Your task to perform on an android device: toggle improve location accuracy Image 0: 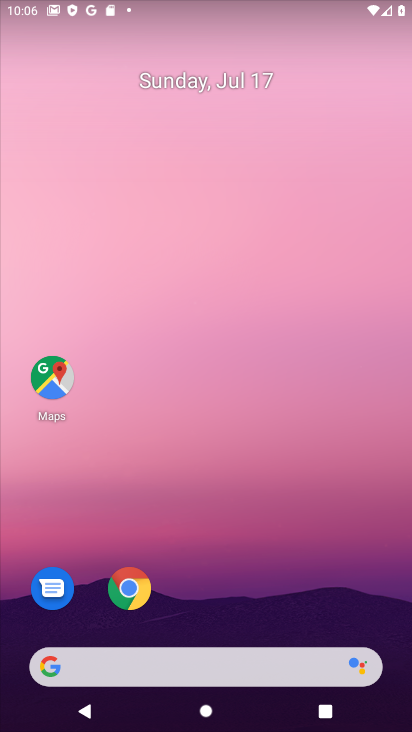
Step 0: drag from (294, 615) to (250, 89)
Your task to perform on an android device: toggle improve location accuracy Image 1: 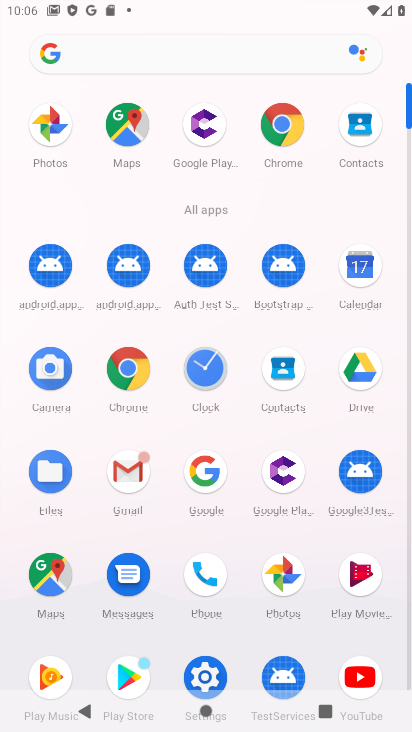
Step 1: click (191, 676)
Your task to perform on an android device: toggle improve location accuracy Image 2: 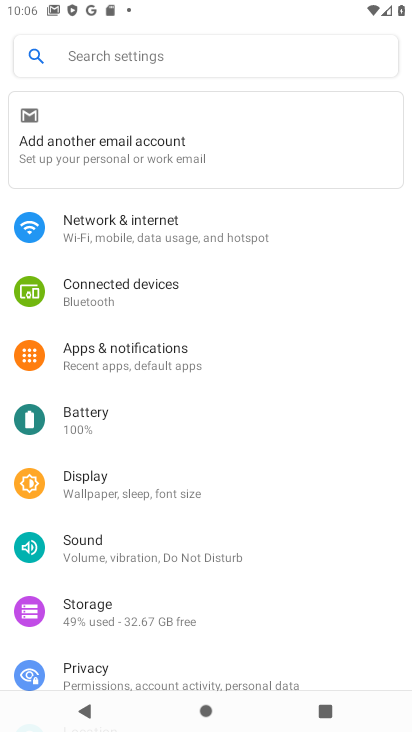
Step 2: drag from (199, 656) to (189, 292)
Your task to perform on an android device: toggle improve location accuracy Image 3: 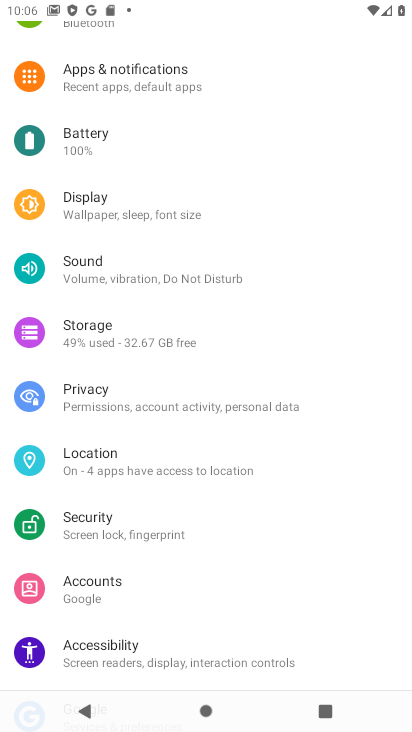
Step 3: click (155, 478)
Your task to perform on an android device: toggle improve location accuracy Image 4: 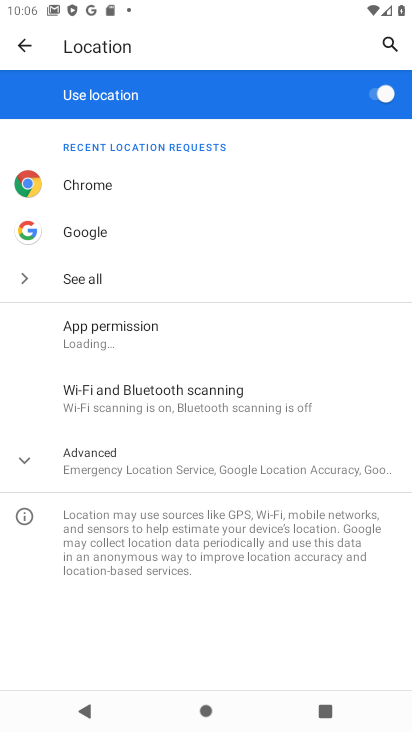
Step 4: click (296, 456)
Your task to perform on an android device: toggle improve location accuracy Image 5: 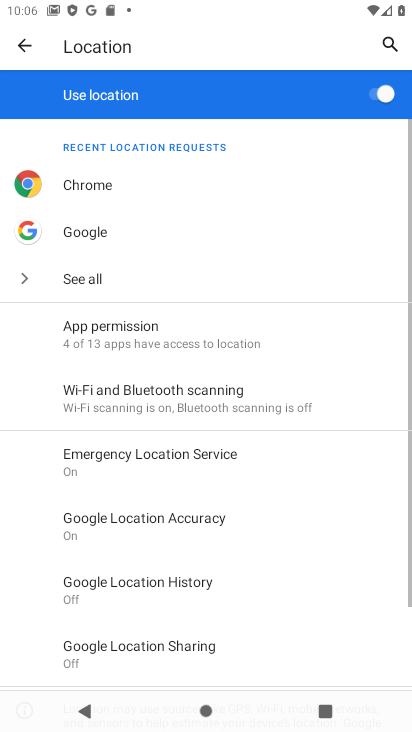
Step 5: click (266, 536)
Your task to perform on an android device: toggle improve location accuracy Image 6: 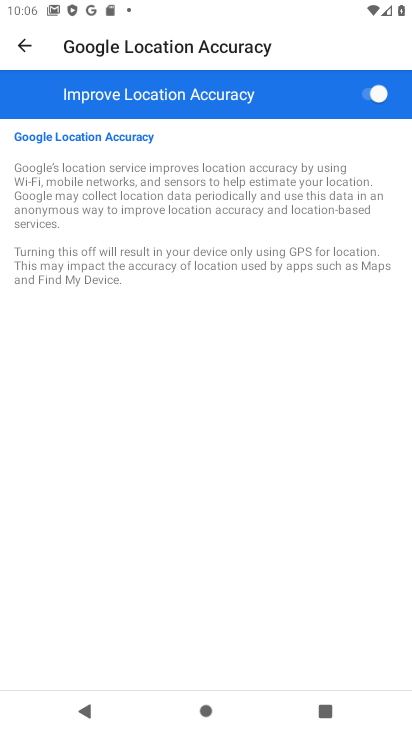
Step 6: click (374, 105)
Your task to perform on an android device: toggle improve location accuracy Image 7: 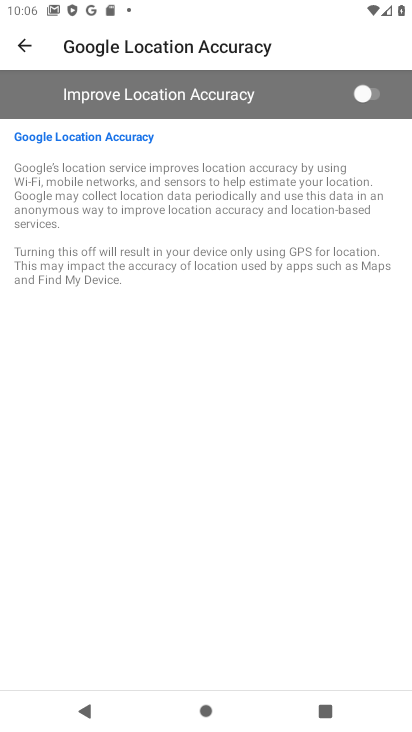
Step 7: task complete